Your task to perform on an android device: change the clock display to analog Image 0: 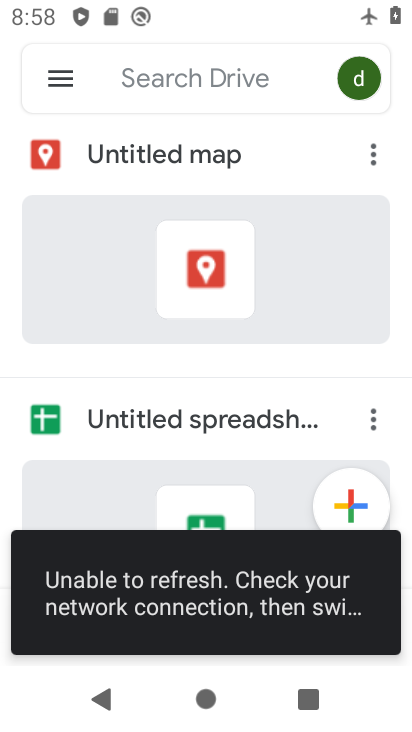
Step 0: drag from (206, 47) to (200, 1)
Your task to perform on an android device: change the clock display to analog Image 1: 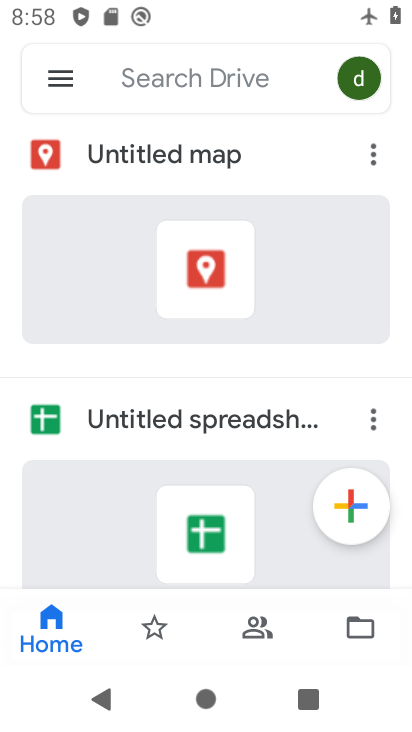
Step 1: press home button
Your task to perform on an android device: change the clock display to analog Image 2: 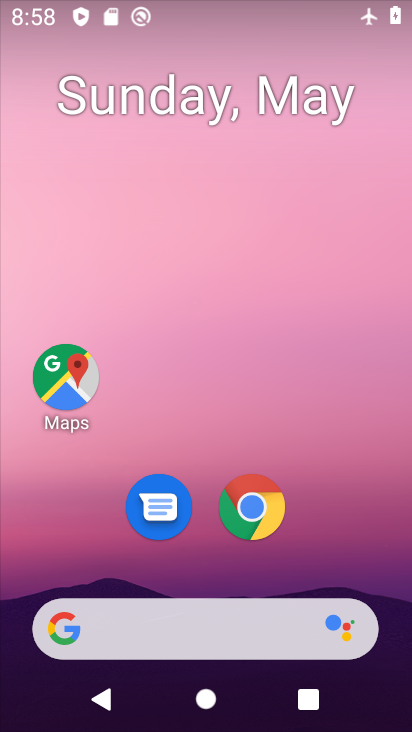
Step 2: drag from (214, 565) to (181, 25)
Your task to perform on an android device: change the clock display to analog Image 3: 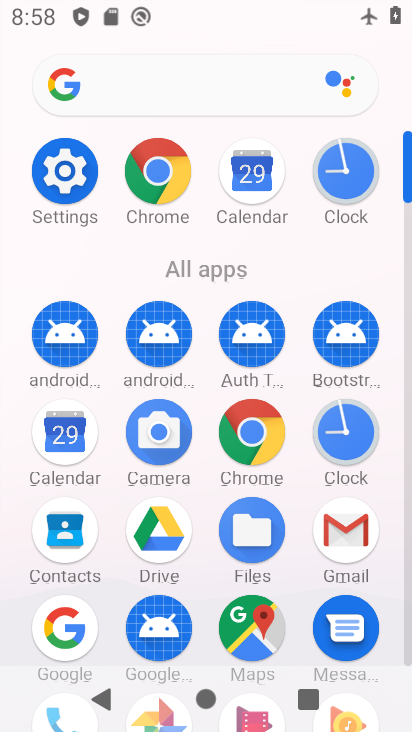
Step 3: click (351, 443)
Your task to perform on an android device: change the clock display to analog Image 4: 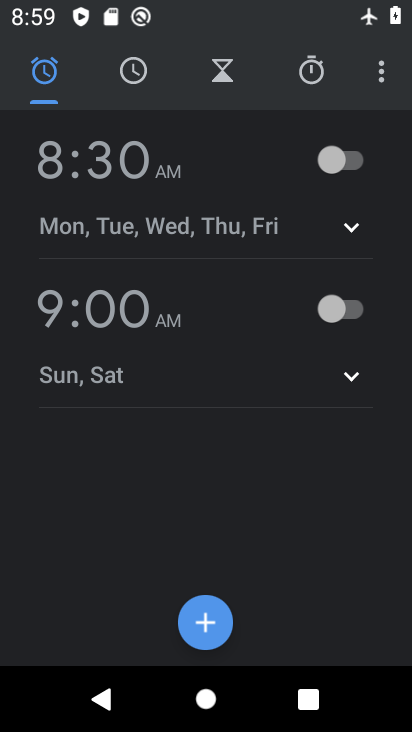
Step 4: click (377, 74)
Your task to perform on an android device: change the clock display to analog Image 5: 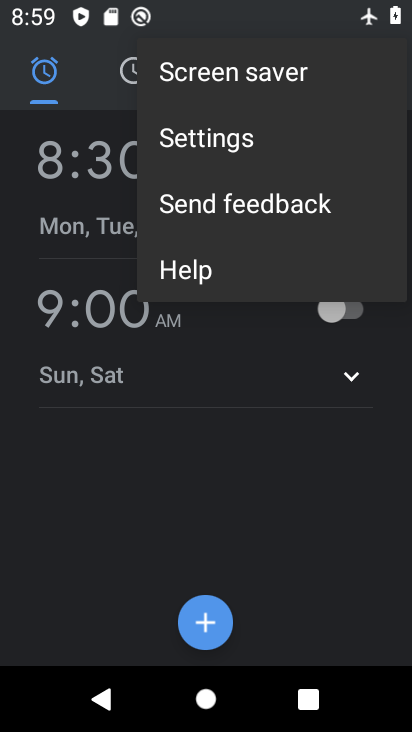
Step 5: click (226, 145)
Your task to perform on an android device: change the clock display to analog Image 6: 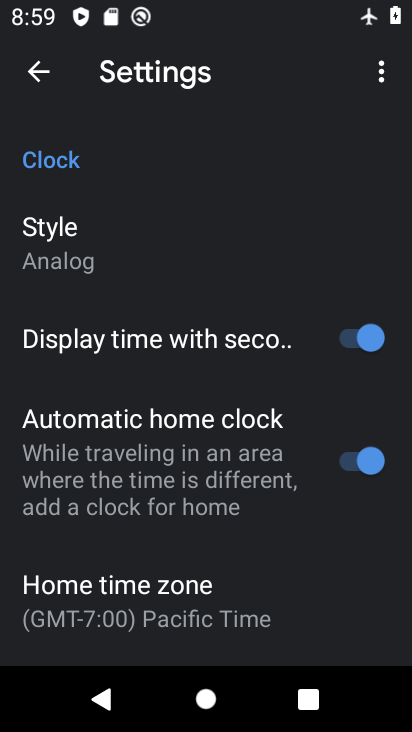
Step 6: task complete